Your task to perform on an android device: Open Google Chrome and click the shortcut for Amazon.com Image 0: 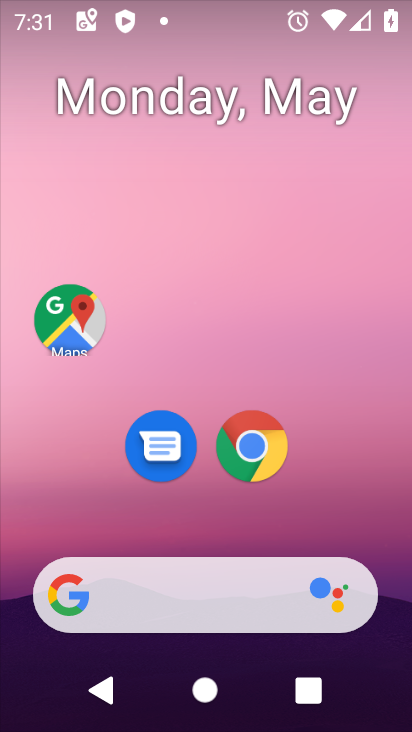
Step 0: click (253, 452)
Your task to perform on an android device: Open Google Chrome and click the shortcut for Amazon.com Image 1: 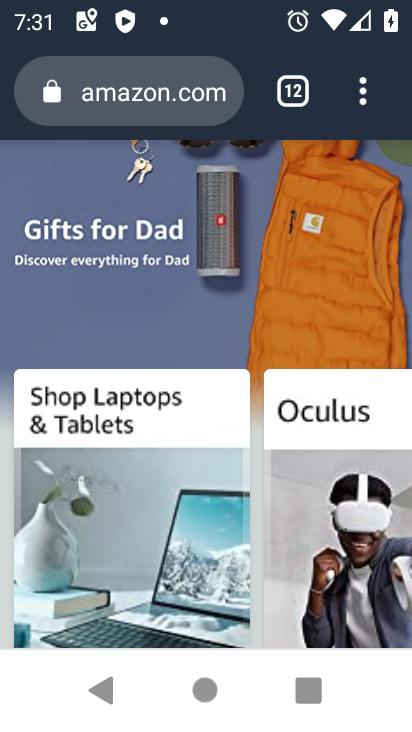
Step 1: click (360, 84)
Your task to perform on an android device: Open Google Chrome and click the shortcut for Amazon.com Image 2: 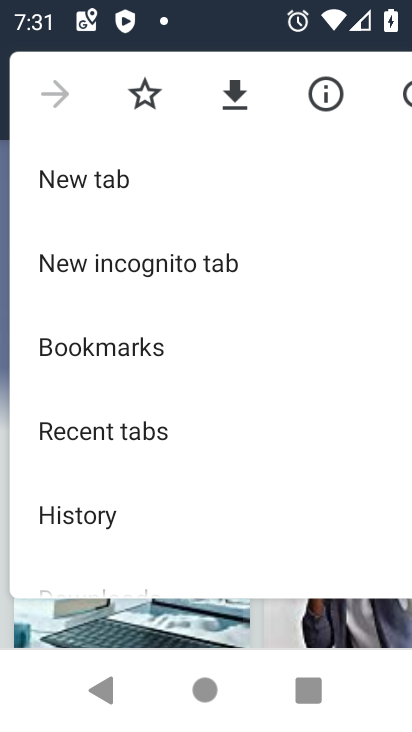
Step 2: click (83, 171)
Your task to perform on an android device: Open Google Chrome and click the shortcut for Amazon.com Image 3: 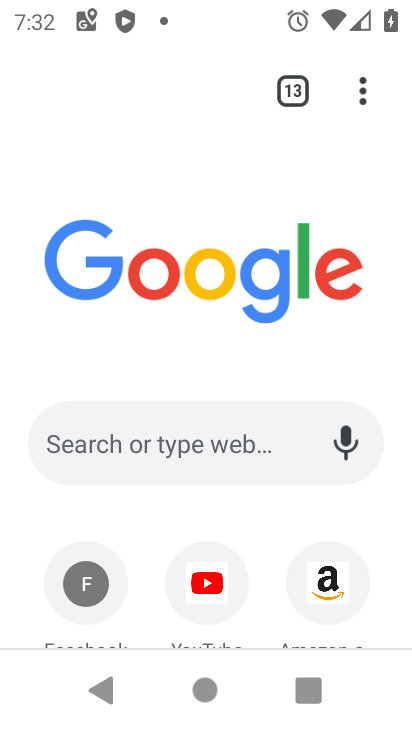
Step 3: click (328, 582)
Your task to perform on an android device: Open Google Chrome and click the shortcut for Amazon.com Image 4: 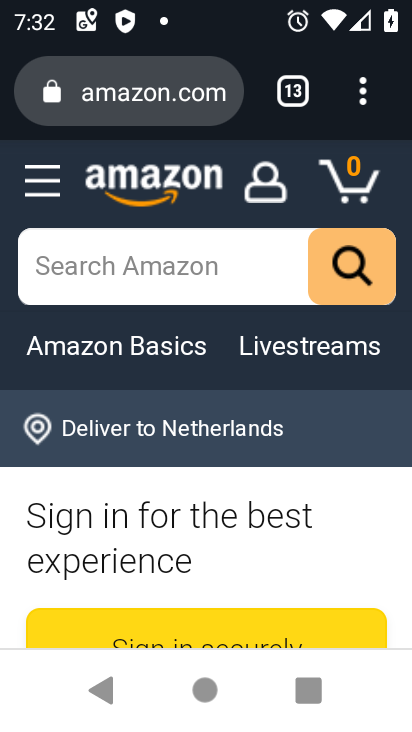
Step 4: task complete